Your task to perform on an android device: View the shopping cart on ebay.com. Search for "corsair k70" on ebay.com, select the first entry, add it to the cart, then select checkout. Image 0: 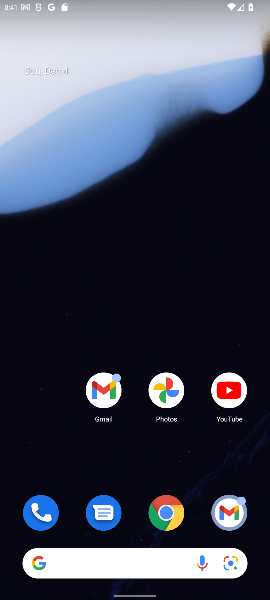
Step 0: click (163, 511)
Your task to perform on an android device: View the shopping cart on ebay.com. Search for "corsair k70" on ebay.com, select the first entry, add it to the cart, then select checkout. Image 1: 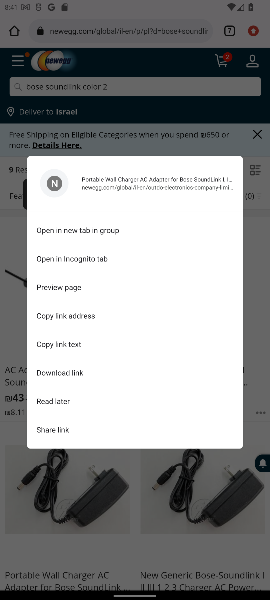
Step 1: click (115, 475)
Your task to perform on an android device: View the shopping cart on ebay.com. Search for "corsair k70" on ebay.com, select the first entry, add it to the cart, then select checkout. Image 2: 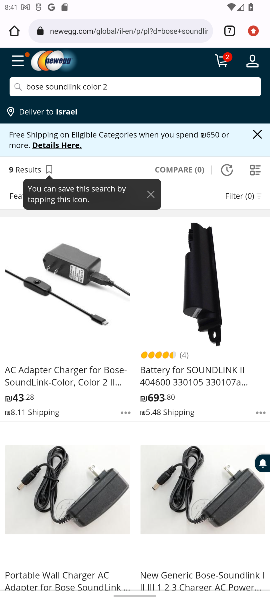
Step 2: click (230, 27)
Your task to perform on an android device: View the shopping cart on ebay.com. Search for "corsair k70" on ebay.com, select the first entry, add it to the cart, then select checkout. Image 3: 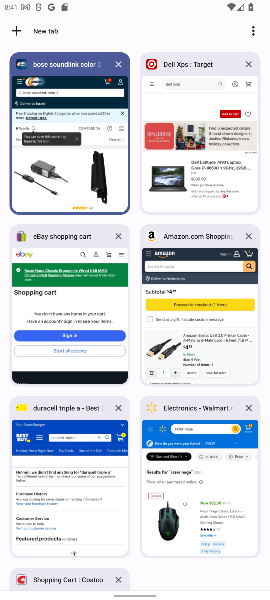
Step 3: click (105, 255)
Your task to perform on an android device: View the shopping cart on ebay.com. Search for "corsair k70" on ebay.com, select the first entry, add it to the cart, then select checkout. Image 4: 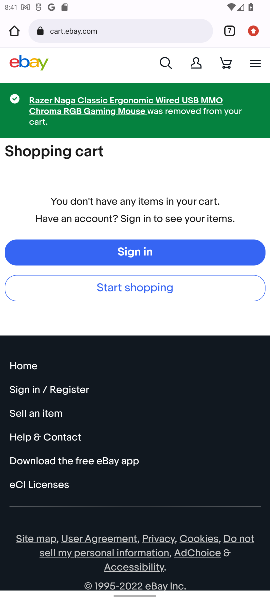
Step 4: click (164, 59)
Your task to perform on an android device: View the shopping cart on ebay.com. Search for "corsair k70" on ebay.com, select the first entry, add it to the cart, then select checkout. Image 5: 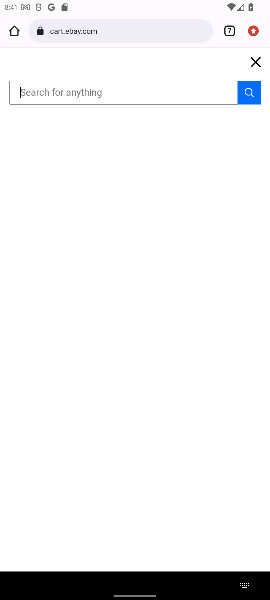
Step 5: type "corsair k70"
Your task to perform on an android device: View the shopping cart on ebay.com. Search for "corsair k70" on ebay.com, select the first entry, add it to the cart, then select checkout. Image 6: 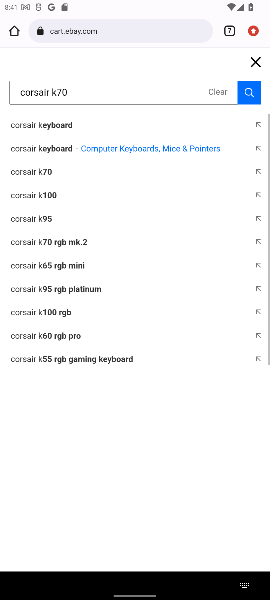
Step 6: click (247, 91)
Your task to perform on an android device: View the shopping cart on ebay.com. Search for "corsair k70" on ebay.com, select the first entry, add it to the cart, then select checkout. Image 7: 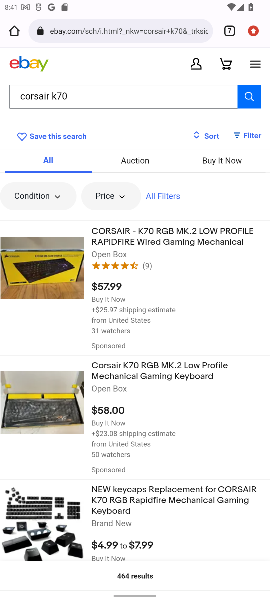
Step 7: click (163, 239)
Your task to perform on an android device: View the shopping cart on ebay.com. Search for "corsair k70" on ebay.com, select the first entry, add it to the cart, then select checkout. Image 8: 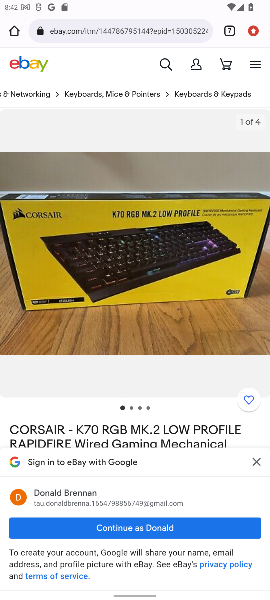
Step 8: drag from (173, 519) to (212, 181)
Your task to perform on an android device: View the shopping cart on ebay.com. Search for "corsair k70" on ebay.com, select the first entry, add it to the cart, then select checkout. Image 9: 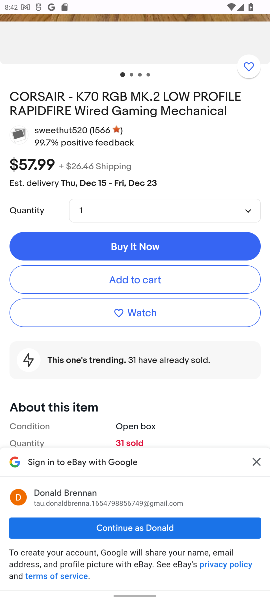
Step 9: click (157, 526)
Your task to perform on an android device: View the shopping cart on ebay.com. Search for "corsair k70" on ebay.com, select the first entry, add it to the cart, then select checkout. Image 10: 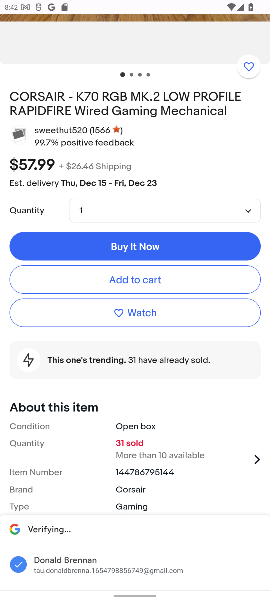
Step 10: click (175, 279)
Your task to perform on an android device: View the shopping cart on ebay.com. Search for "corsair k70" on ebay.com, select the first entry, add it to the cart, then select checkout. Image 11: 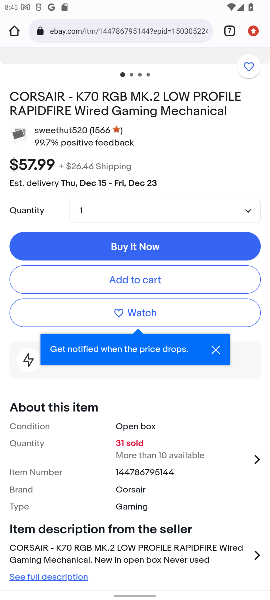
Step 11: click (168, 286)
Your task to perform on an android device: View the shopping cart on ebay.com. Search for "corsair k70" on ebay.com, select the first entry, add it to the cart, then select checkout. Image 12: 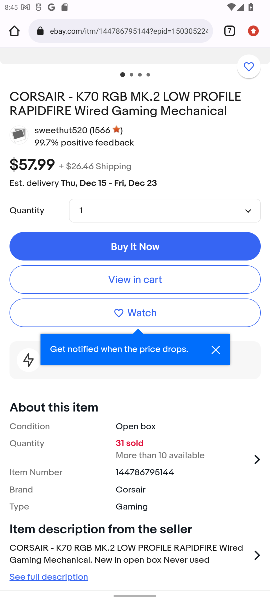
Step 12: task complete